Your task to perform on an android device: toggle priority inbox in the gmail app Image 0: 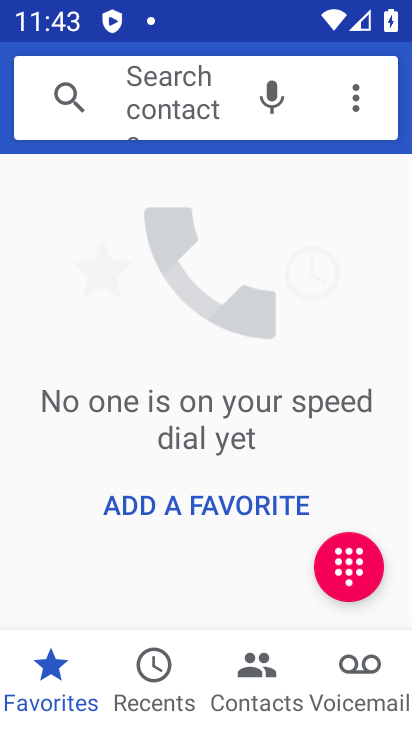
Step 0: press home button
Your task to perform on an android device: toggle priority inbox in the gmail app Image 1: 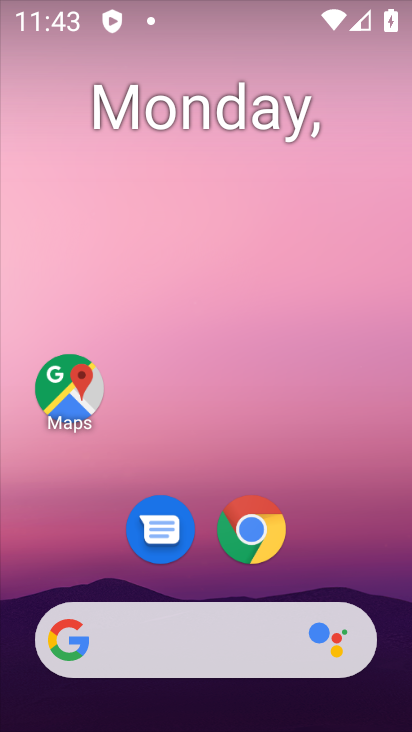
Step 1: drag from (351, 566) to (350, 124)
Your task to perform on an android device: toggle priority inbox in the gmail app Image 2: 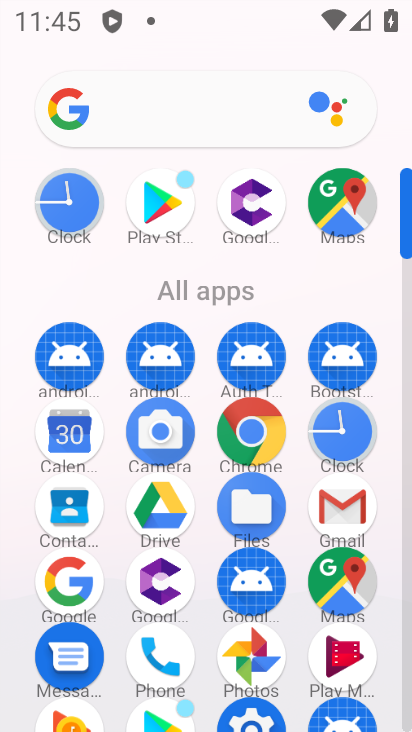
Step 2: drag from (215, 572) to (158, 177)
Your task to perform on an android device: toggle priority inbox in the gmail app Image 3: 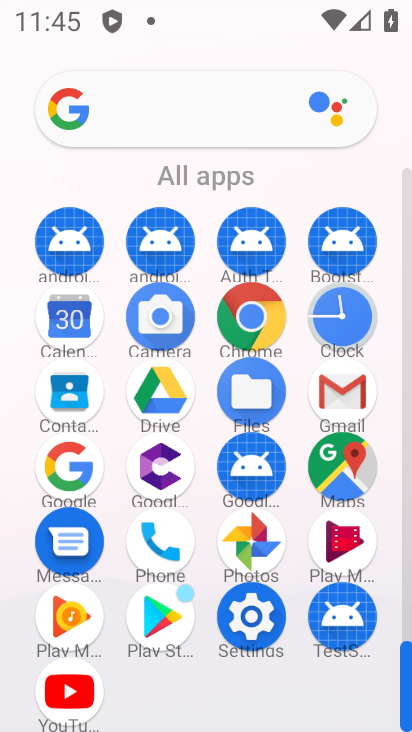
Step 3: click (337, 375)
Your task to perform on an android device: toggle priority inbox in the gmail app Image 4: 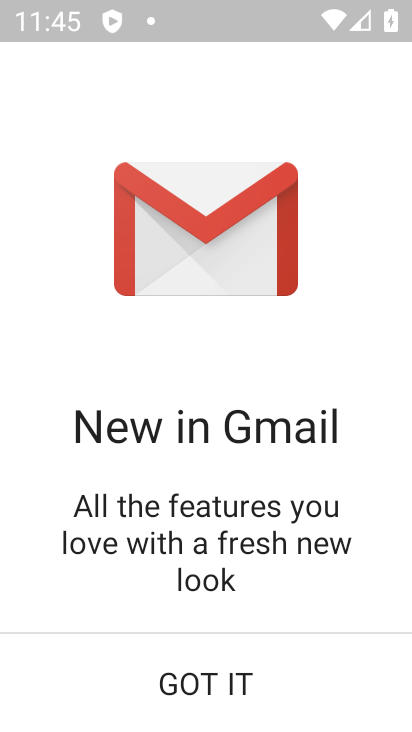
Step 4: click (273, 697)
Your task to perform on an android device: toggle priority inbox in the gmail app Image 5: 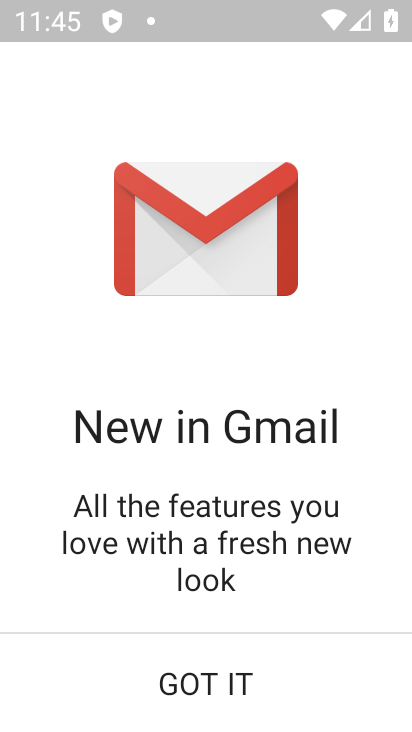
Step 5: click (273, 697)
Your task to perform on an android device: toggle priority inbox in the gmail app Image 6: 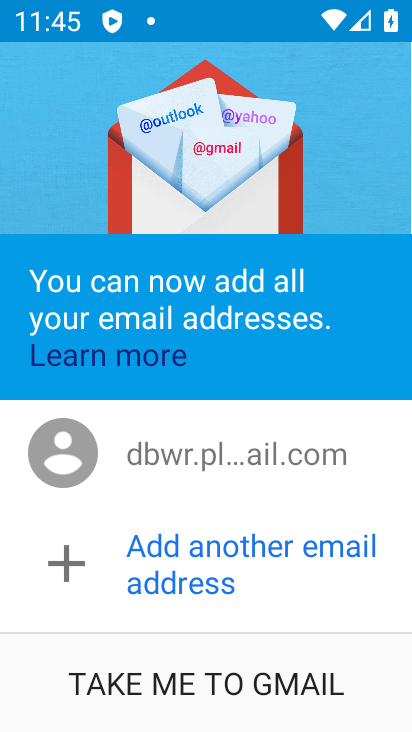
Step 6: click (120, 693)
Your task to perform on an android device: toggle priority inbox in the gmail app Image 7: 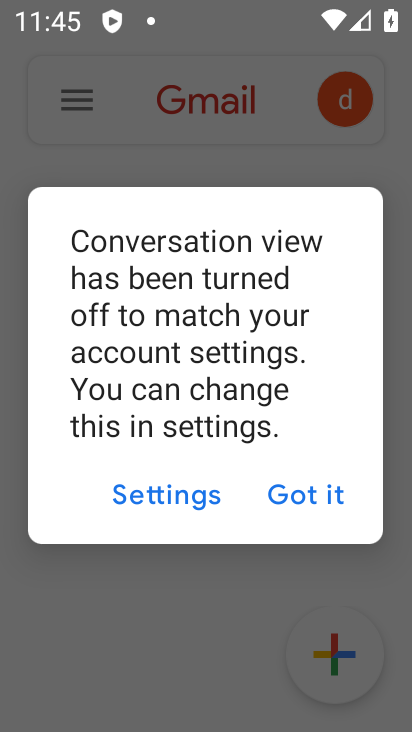
Step 7: click (283, 503)
Your task to perform on an android device: toggle priority inbox in the gmail app Image 8: 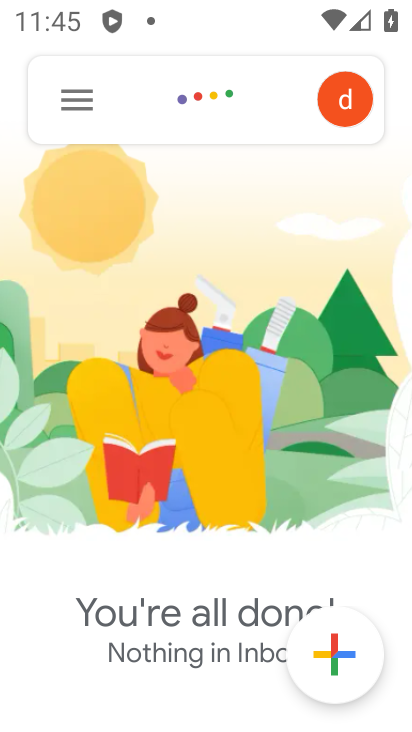
Step 8: click (66, 93)
Your task to perform on an android device: toggle priority inbox in the gmail app Image 9: 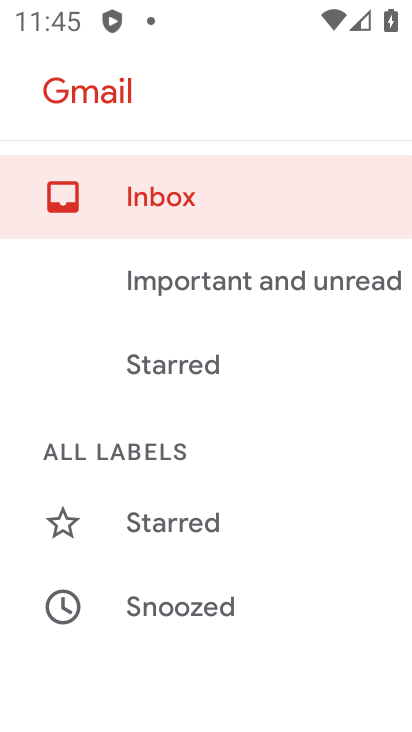
Step 9: drag from (230, 626) to (165, 240)
Your task to perform on an android device: toggle priority inbox in the gmail app Image 10: 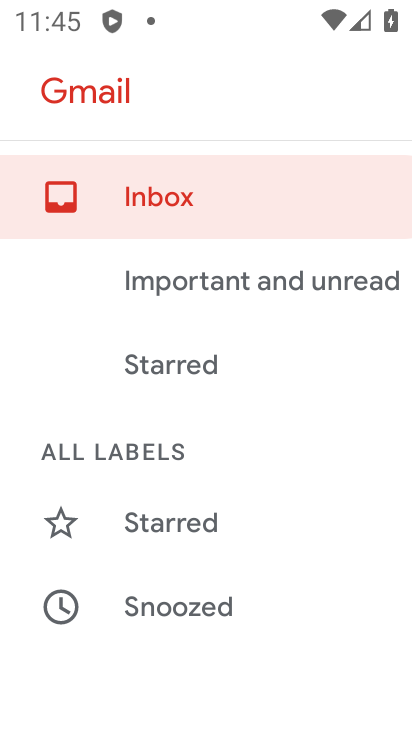
Step 10: drag from (182, 527) to (145, 160)
Your task to perform on an android device: toggle priority inbox in the gmail app Image 11: 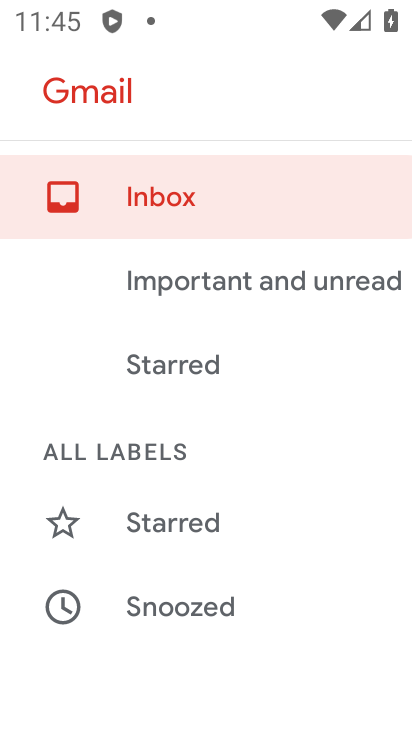
Step 11: drag from (184, 486) to (161, 195)
Your task to perform on an android device: toggle priority inbox in the gmail app Image 12: 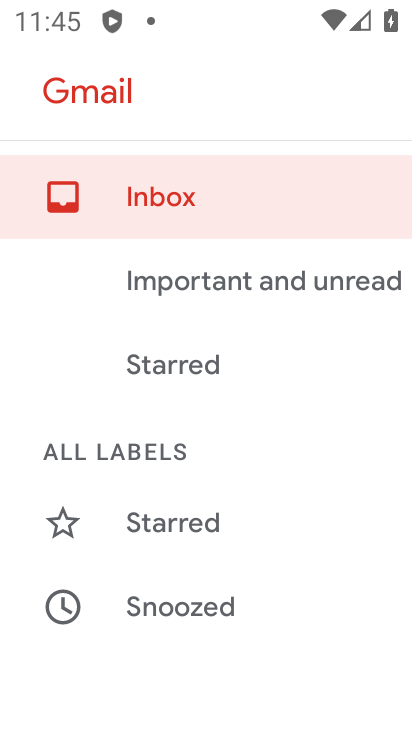
Step 12: drag from (184, 480) to (320, 200)
Your task to perform on an android device: toggle priority inbox in the gmail app Image 13: 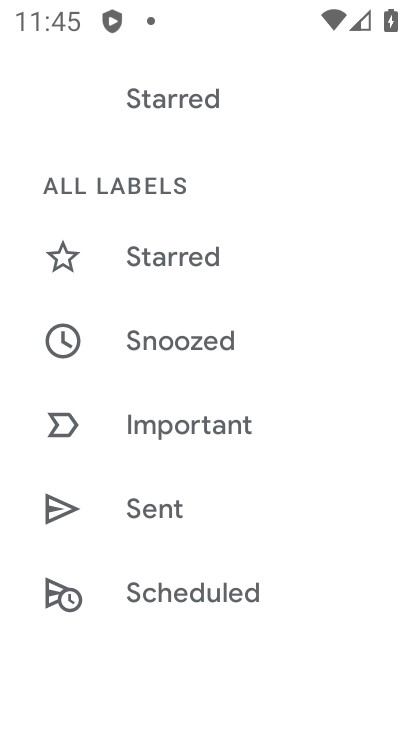
Step 13: drag from (174, 562) to (257, 123)
Your task to perform on an android device: toggle priority inbox in the gmail app Image 14: 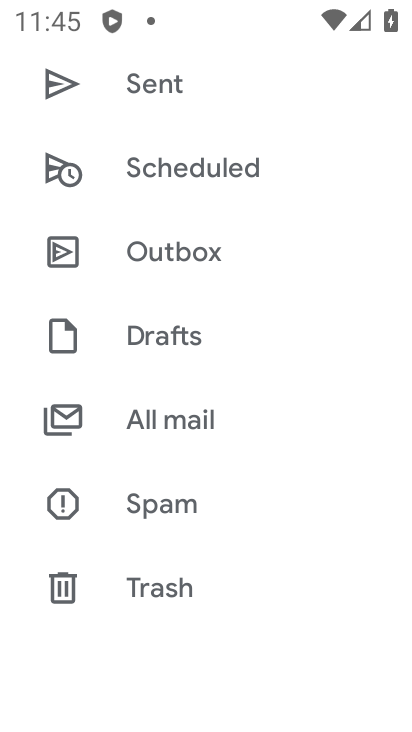
Step 14: drag from (192, 483) to (347, 0)
Your task to perform on an android device: toggle priority inbox in the gmail app Image 15: 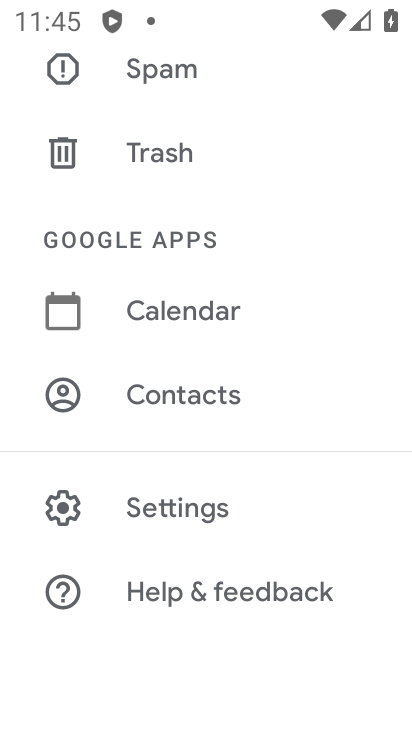
Step 15: click (166, 506)
Your task to perform on an android device: toggle priority inbox in the gmail app Image 16: 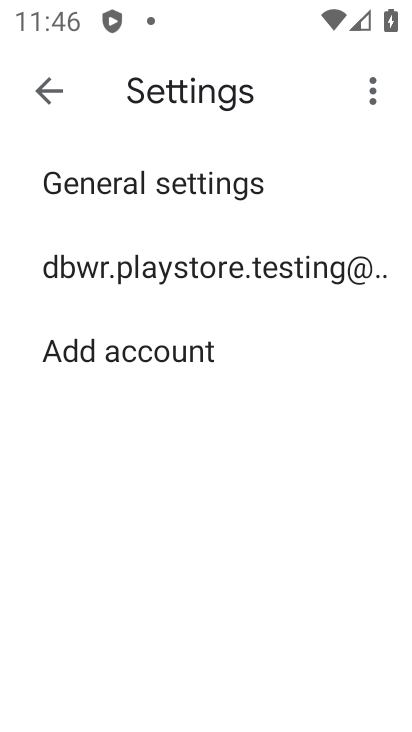
Step 16: click (134, 261)
Your task to perform on an android device: toggle priority inbox in the gmail app Image 17: 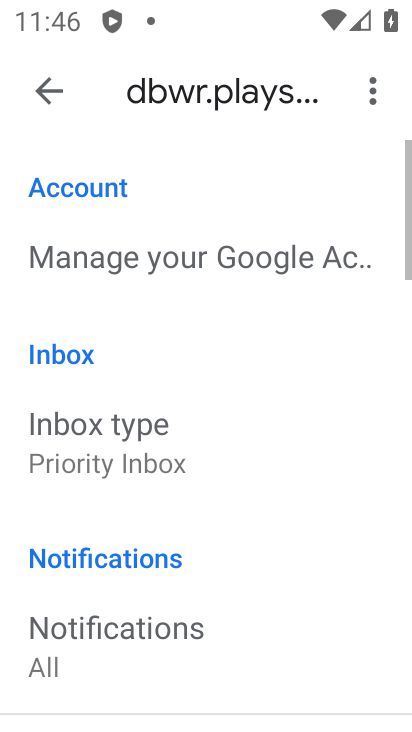
Step 17: click (139, 472)
Your task to perform on an android device: toggle priority inbox in the gmail app Image 18: 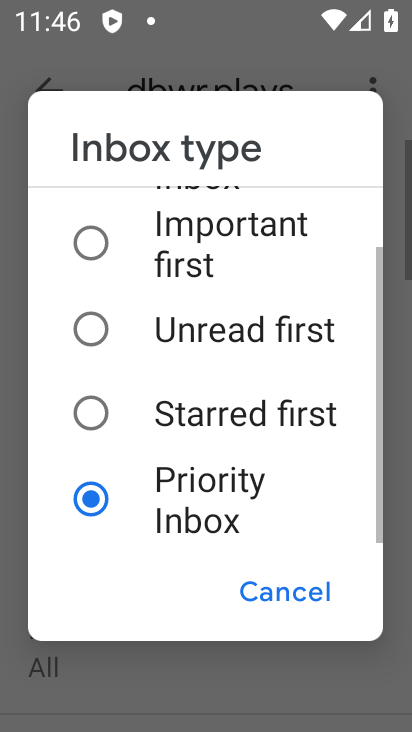
Step 18: drag from (121, 205) to (161, 535)
Your task to perform on an android device: toggle priority inbox in the gmail app Image 19: 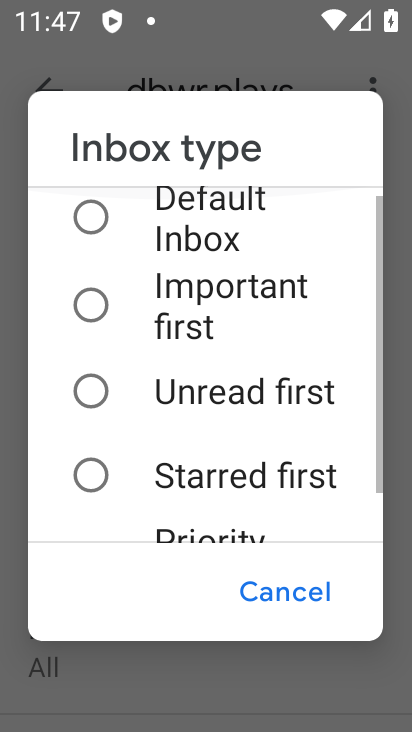
Step 19: click (142, 217)
Your task to perform on an android device: toggle priority inbox in the gmail app Image 20: 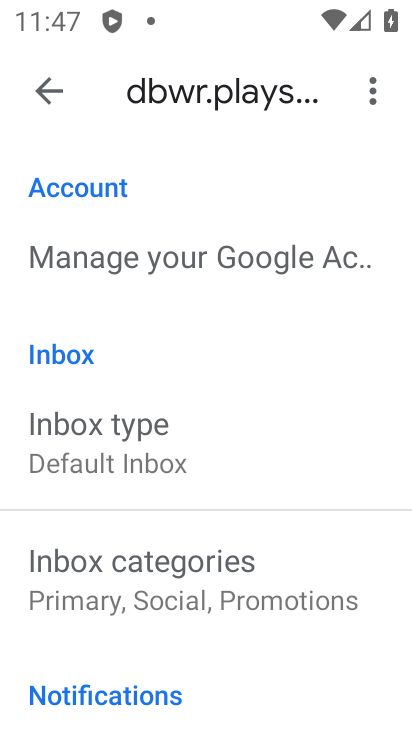
Step 20: task complete